Your task to perform on an android device: turn on sleep mode Image 0: 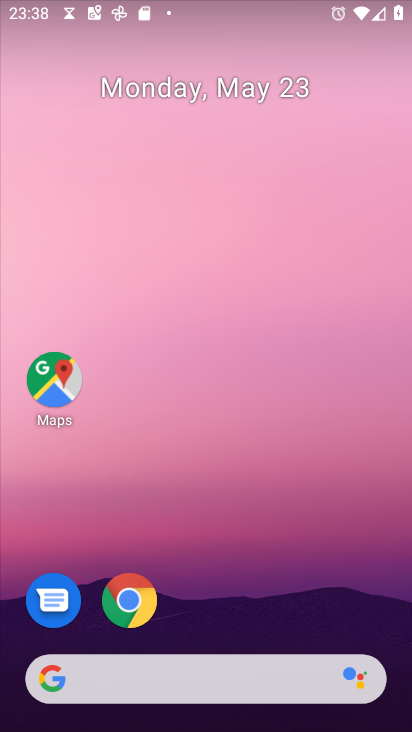
Step 0: drag from (195, 725) to (210, 29)
Your task to perform on an android device: turn on sleep mode Image 1: 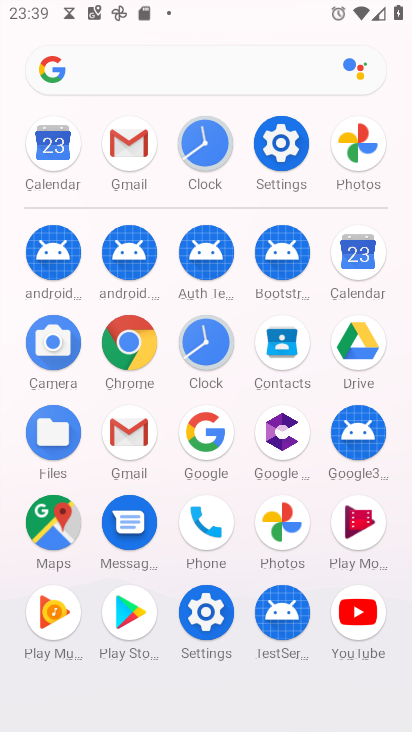
Step 1: click (285, 140)
Your task to perform on an android device: turn on sleep mode Image 2: 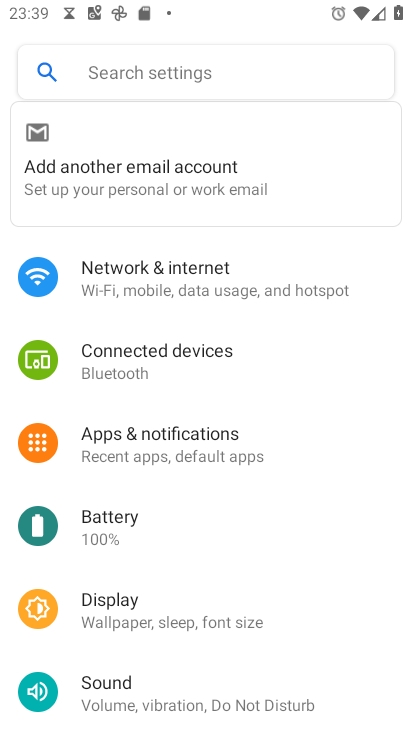
Step 2: drag from (178, 676) to (165, 355)
Your task to perform on an android device: turn on sleep mode Image 3: 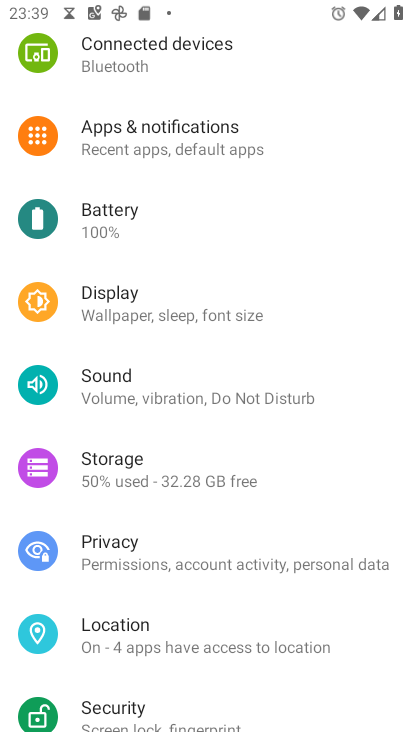
Step 3: drag from (167, 682) to (158, 281)
Your task to perform on an android device: turn on sleep mode Image 4: 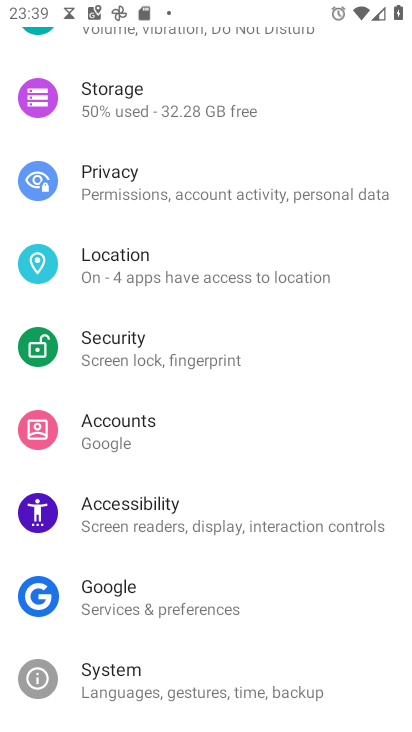
Step 4: drag from (216, 672) to (218, 365)
Your task to perform on an android device: turn on sleep mode Image 5: 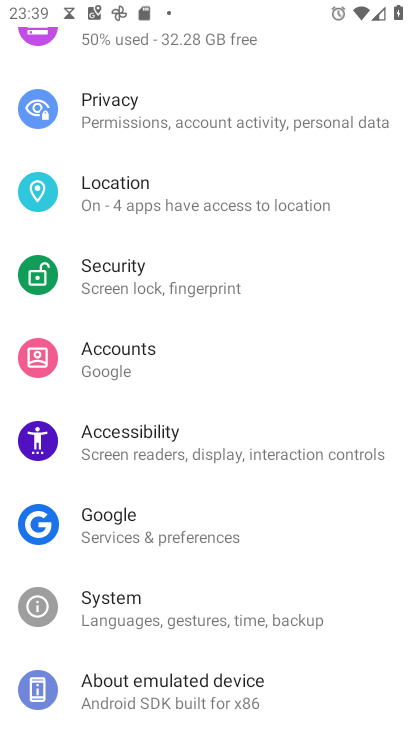
Step 5: drag from (208, 216) to (236, 621)
Your task to perform on an android device: turn on sleep mode Image 6: 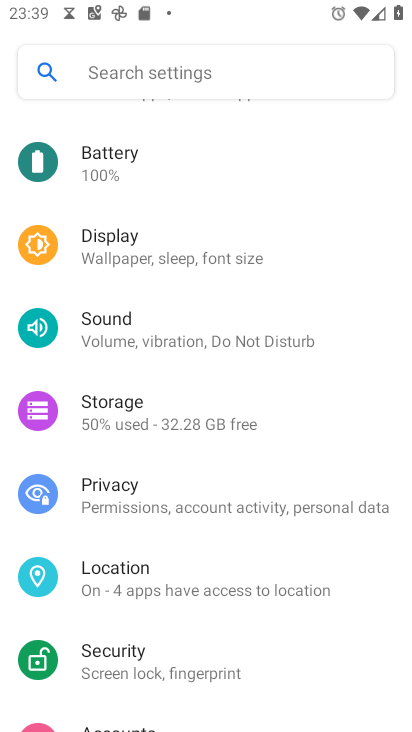
Step 6: drag from (205, 205) to (201, 674)
Your task to perform on an android device: turn on sleep mode Image 7: 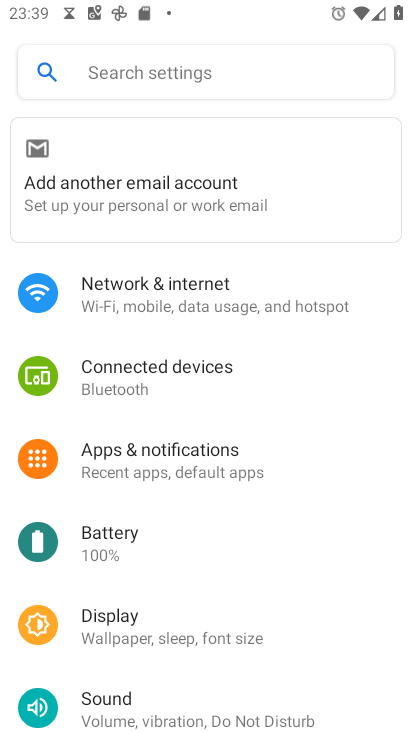
Step 7: click (121, 634)
Your task to perform on an android device: turn on sleep mode Image 8: 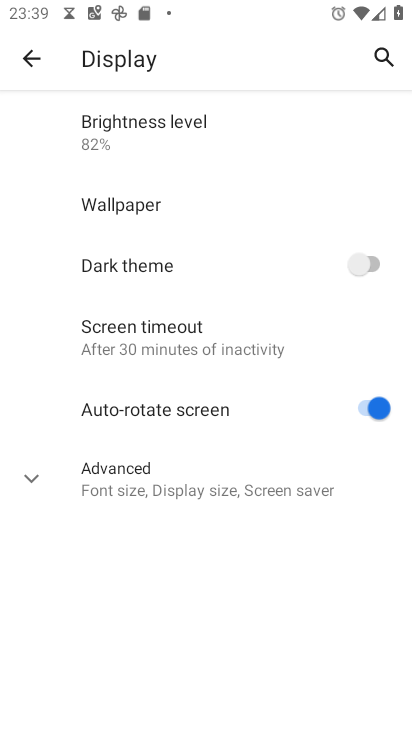
Step 8: click (24, 56)
Your task to perform on an android device: turn on sleep mode Image 9: 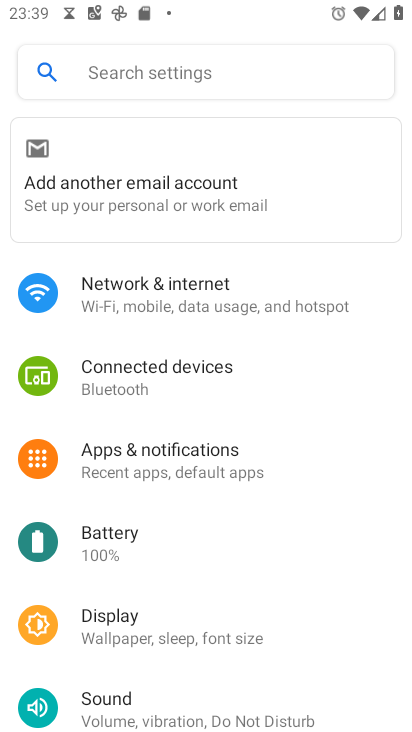
Step 9: task complete